Your task to perform on an android device: Turn off the flashlight Image 0: 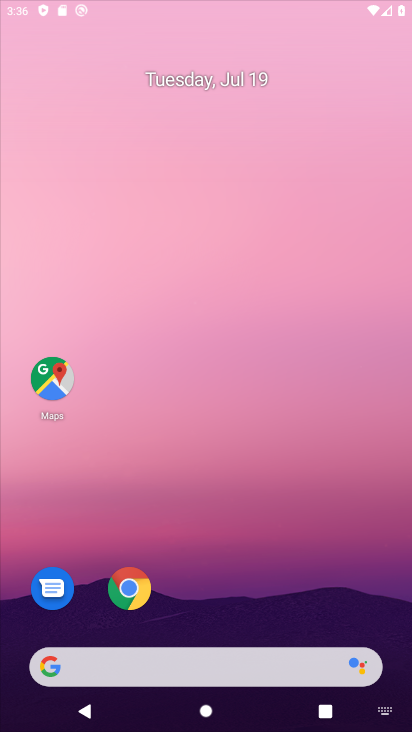
Step 0: click (309, 156)
Your task to perform on an android device: Turn off the flashlight Image 1: 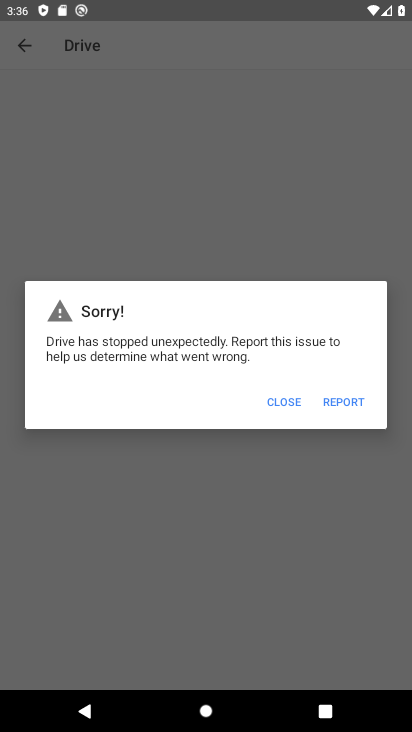
Step 1: press home button
Your task to perform on an android device: Turn off the flashlight Image 2: 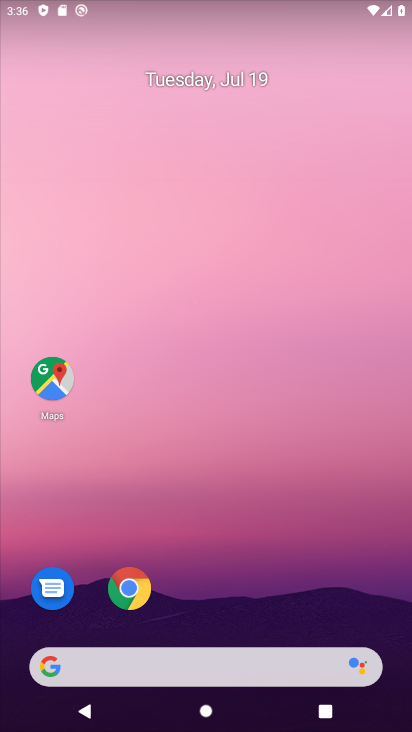
Step 2: drag from (300, 3) to (281, 251)
Your task to perform on an android device: Turn off the flashlight Image 3: 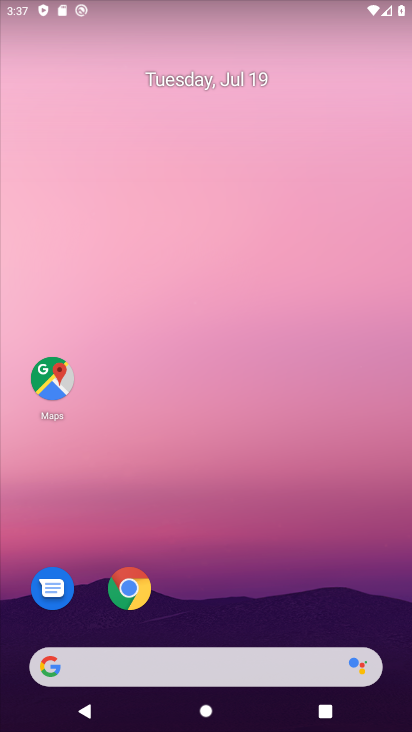
Step 3: drag from (251, 6) to (241, 572)
Your task to perform on an android device: Turn off the flashlight Image 4: 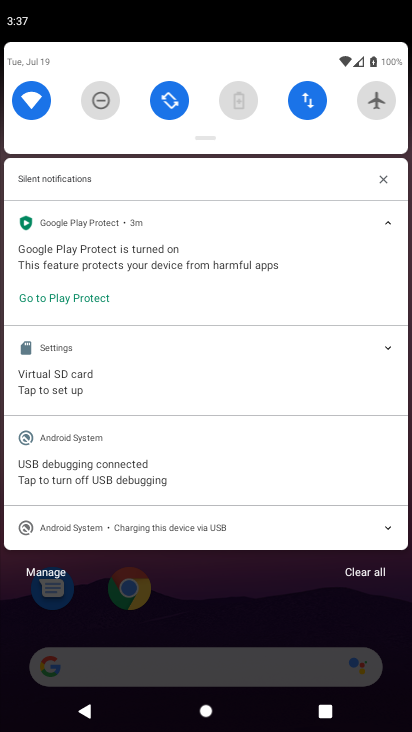
Step 4: drag from (265, 124) to (269, 582)
Your task to perform on an android device: Turn off the flashlight Image 5: 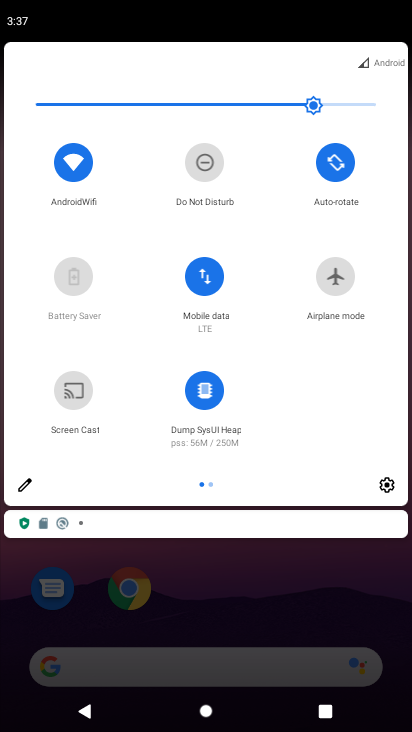
Step 5: click (19, 487)
Your task to perform on an android device: Turn off the flashlight Image 6: 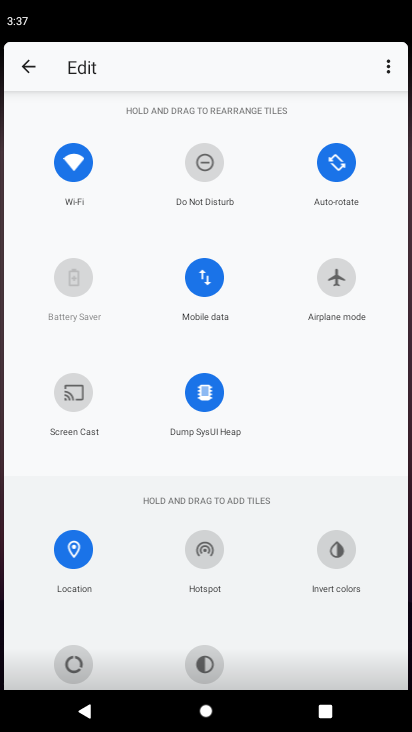
Step 6: task complete